Your task to perform on an android device: toggle location history Image 0: 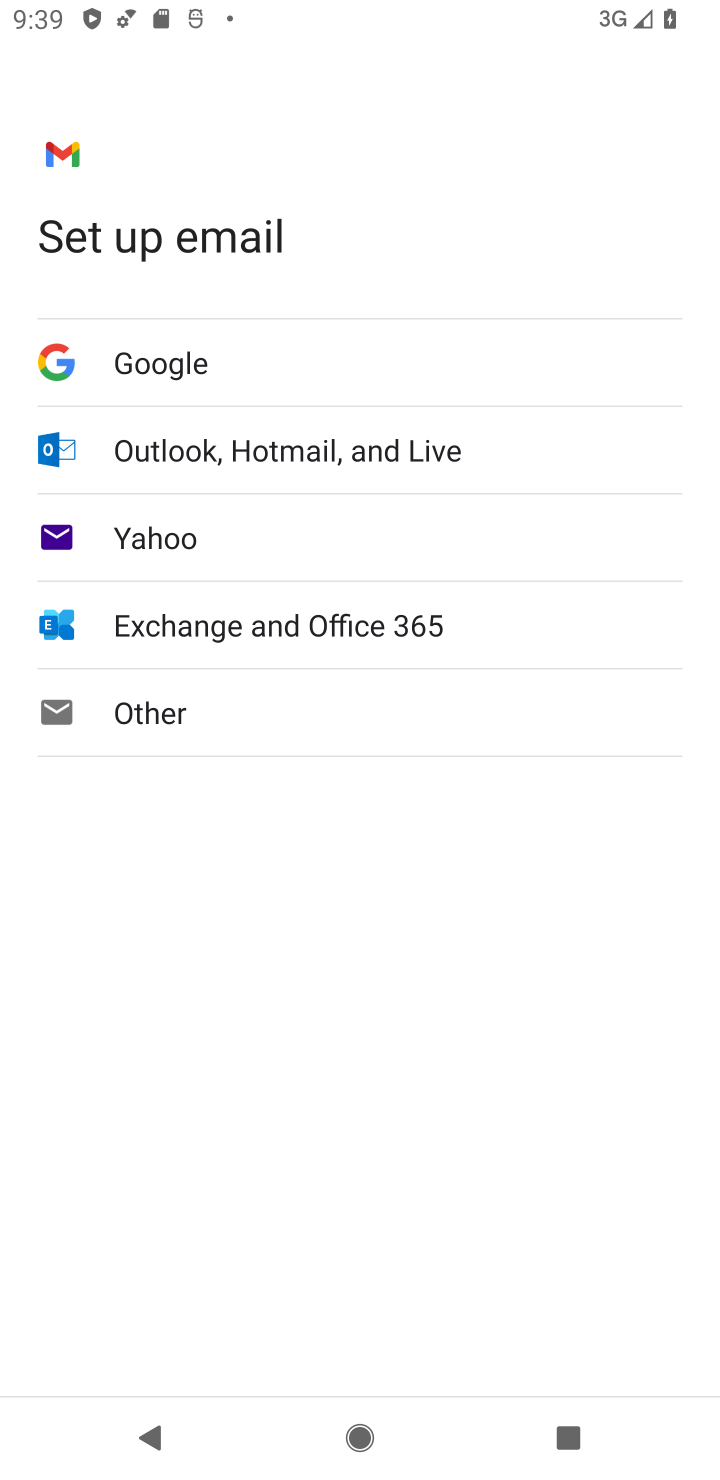
Step 0: press home button
Your task to perform on an android device: toggle location history Image 1: 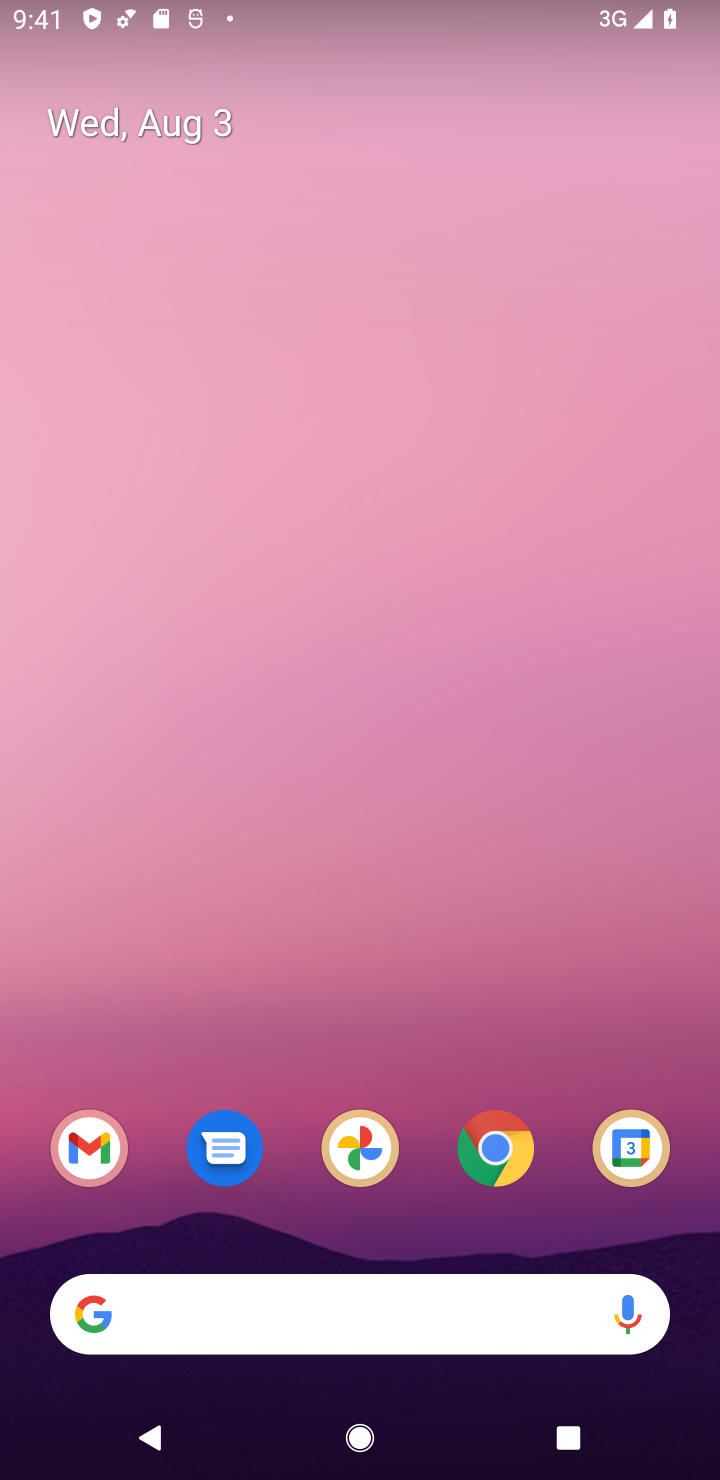
Step 1: drag from (487, 750) to (516, 12)
Your task to perform on an android device: toggle location history Image 2: 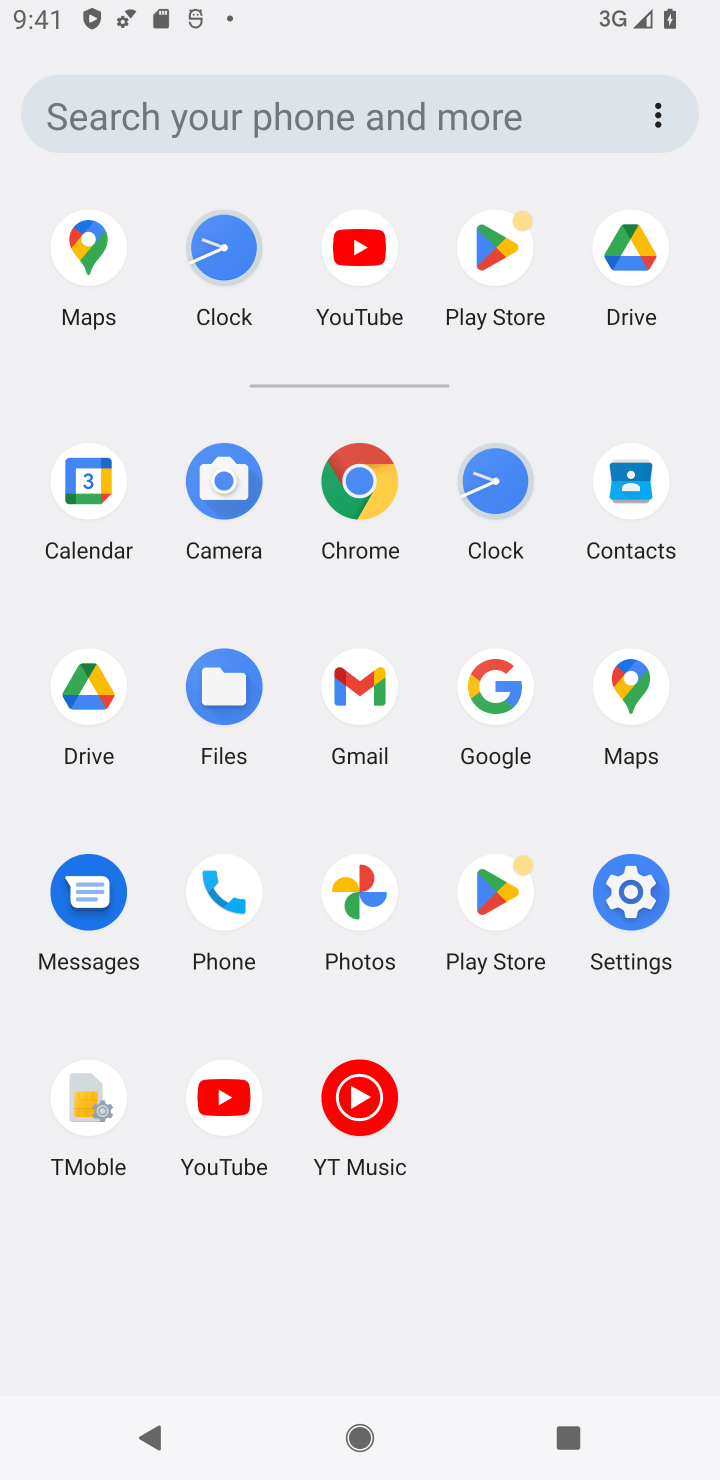
Step 2: click (634, 904)
Your task to perform on an android device: toggle location history Image 3: 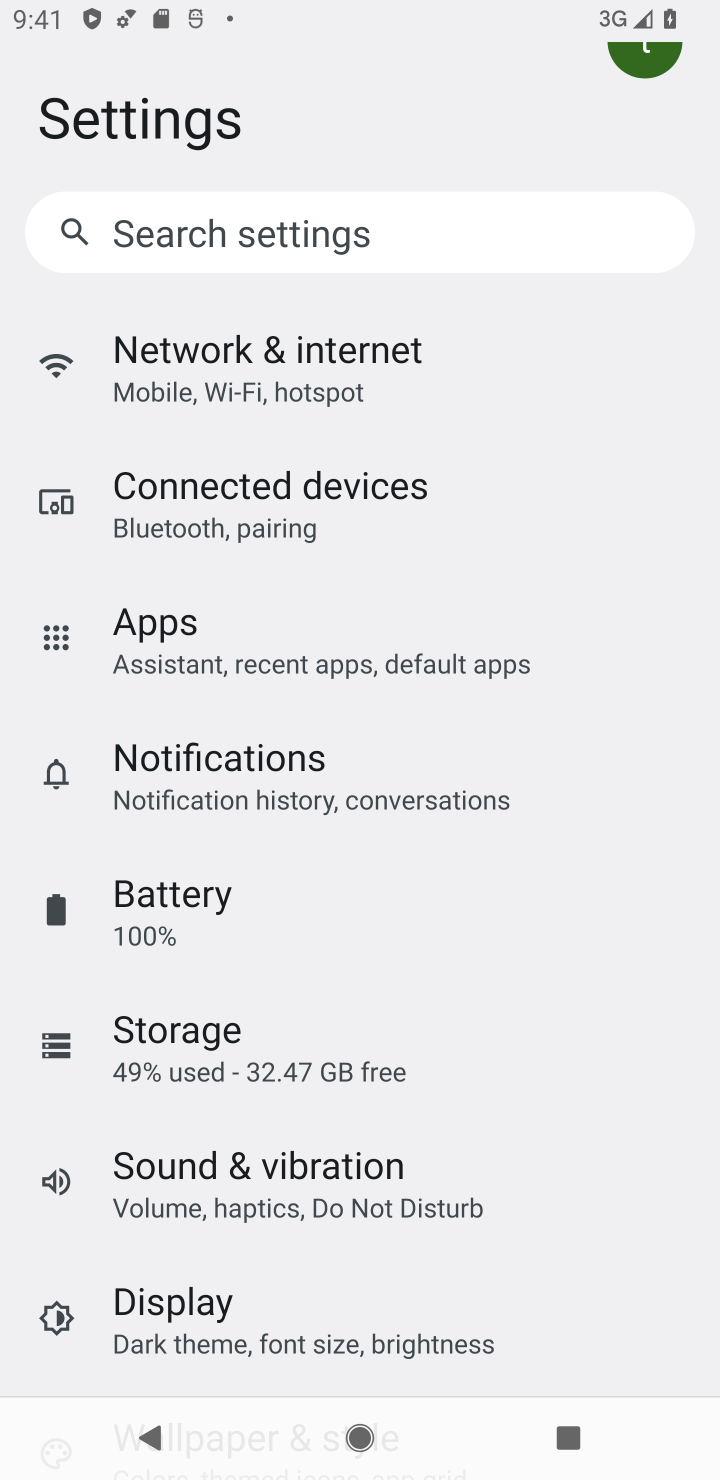
Step 3: task complete